Your task to perform on an android device: When is my next meeting? Image 0: 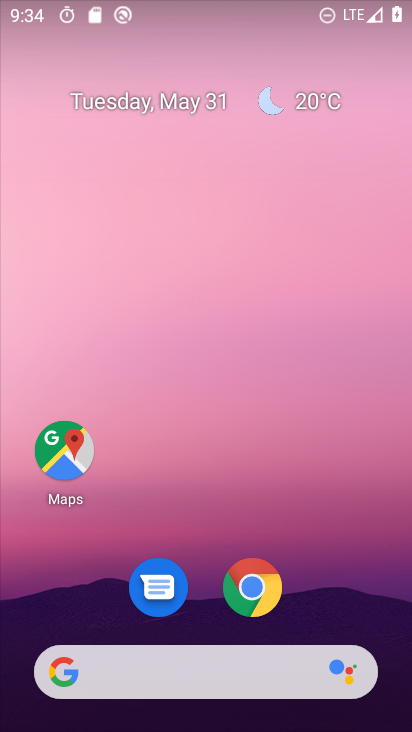
Step 0: click (132, 103)
Your task to perform on an android device: When is my next meeting? Image 1: 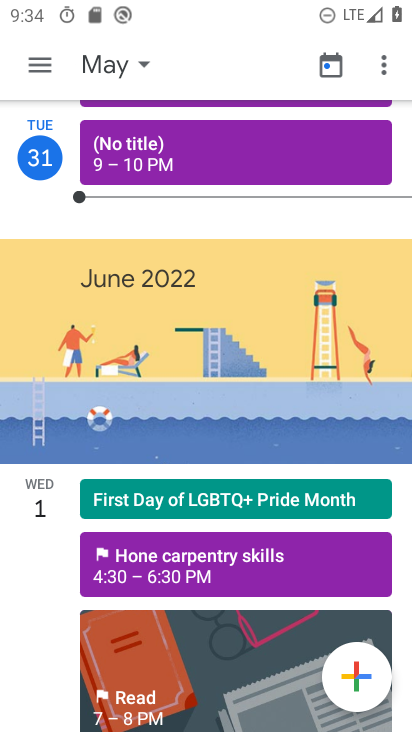
Step 1: task complete